Your task to perform on an android device: read, delete, or share a saved page in the chrome app Image 0: 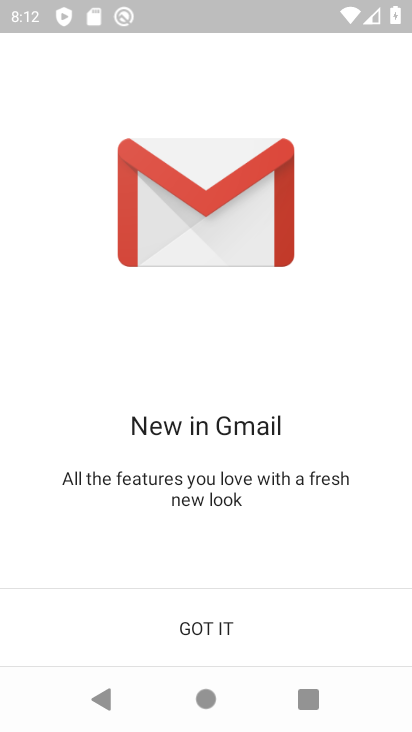
Step 0: press home button
Your task to perform on an android device: read, delete, or share a saved page in the chrome app Image 1: 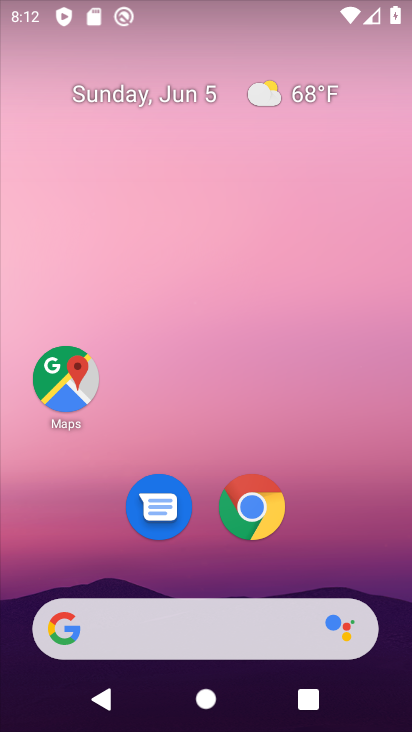
Step 1: click (253, 511)
Your task to perform on an android device: read, delete, or share a saved page in the chrome app Image 2: 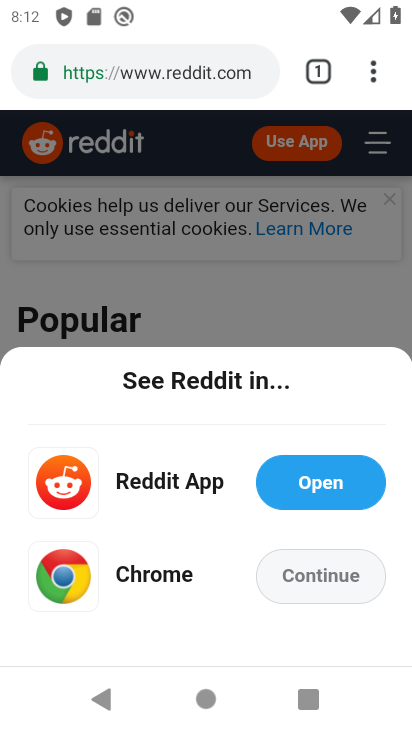
Step 2: click (373, 80)
Your task to perform on an android device: read, delete, or share a saved page in the chrome app Image 3: 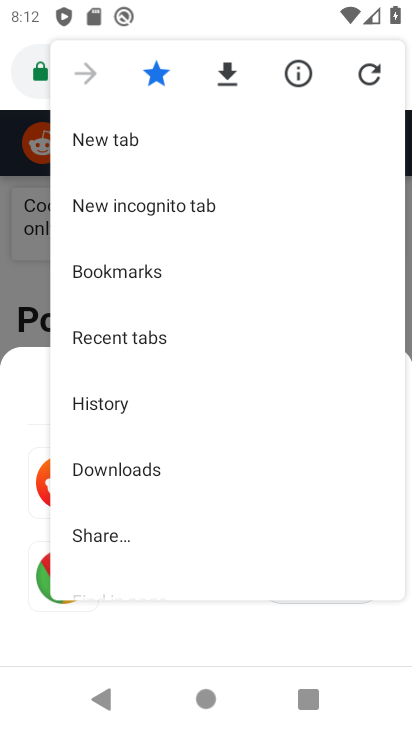
Step 3: click (96, 472)
Your task to perform on an android device: read, delete, or share a saved page in the chrome app Image 4: 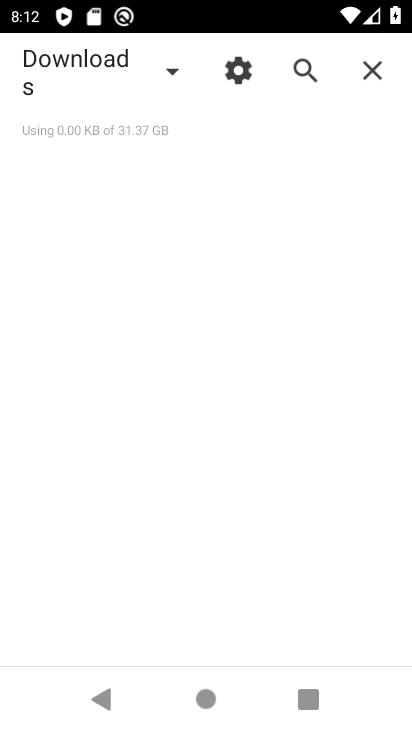
Step 4: click (173, 70)
Your task to perform on an android device: read, delete, or share a saved page in the chrome app Image 5: 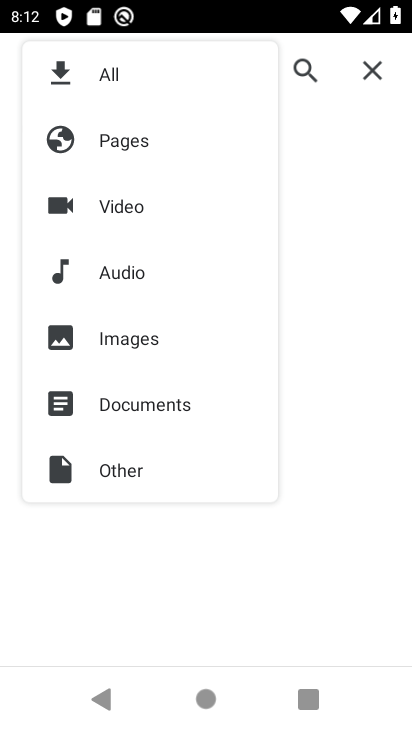
Step 5: click (138, 136)
Your task to perform on an android device: read, delete, or share a saved page in the chrome app Image 6: 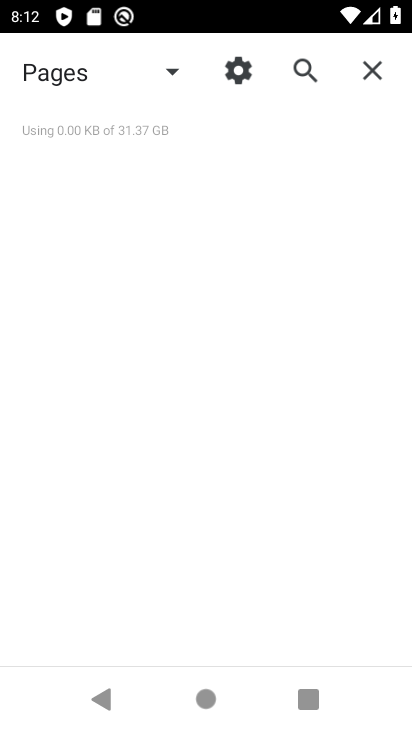
Step 6: task complete